Your task to perform on an android device: see sites visited before in the chrome app Image 0: 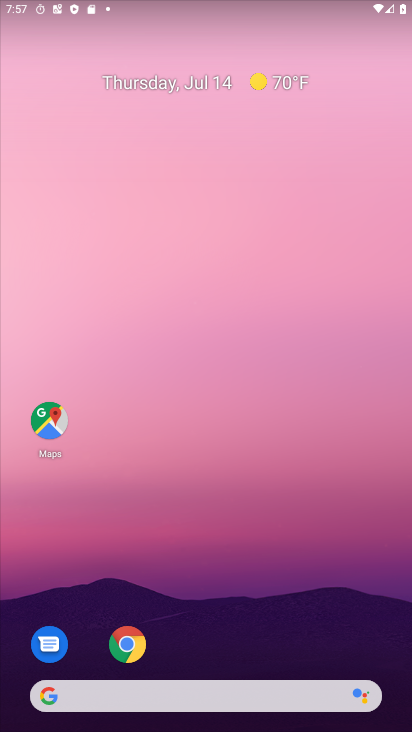
Step 0: click (131, 645)
Your task to perform on an android device: see sites visited before in the chrome app Image 1: 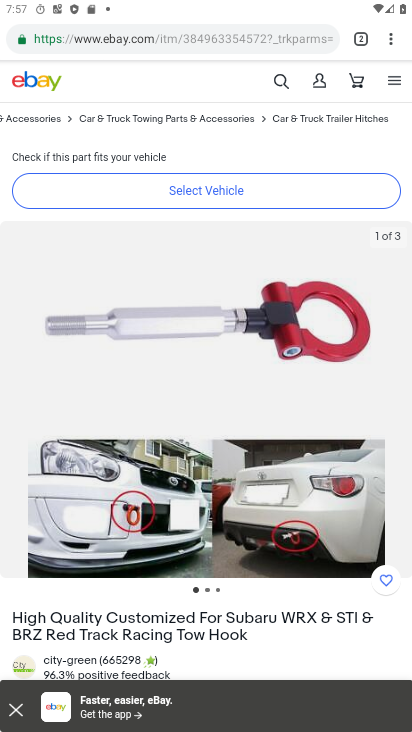
Step 1: task complete